Your task to perform on an android device: see sites visited before in the chrome app Image 0: 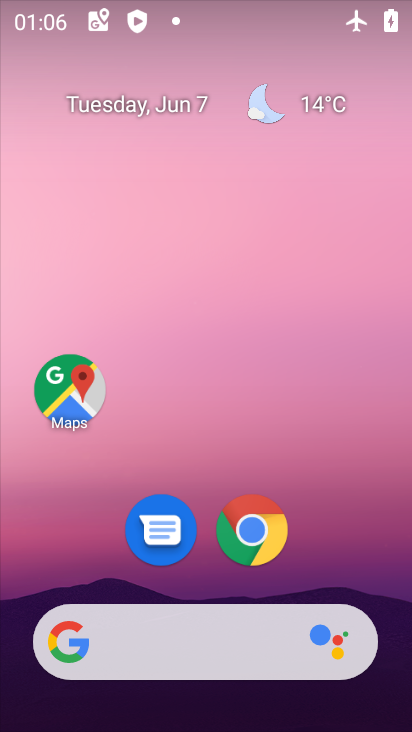
Step 0: click (254, 519)
Your task to perform on an android device: see sites visited before in the chrome app Image 1: 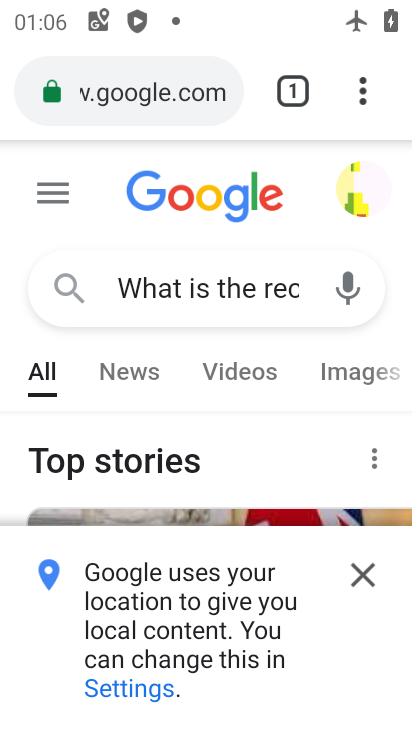
Step 1: click (371, 93)
Your task to perform on an android device: see sites visited before in the chrome app Image 2: 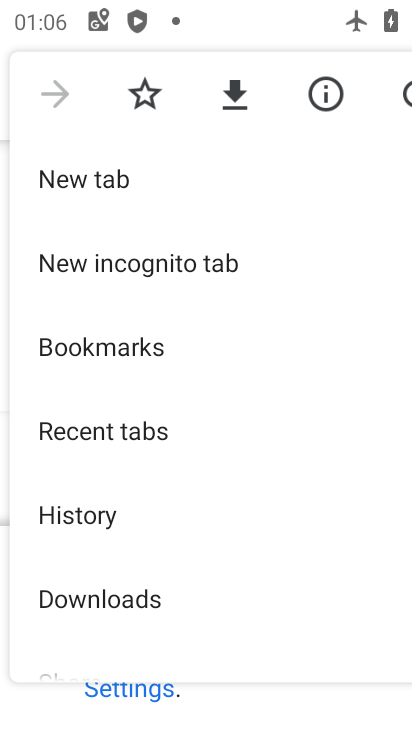
Step 2: click (110, 514)
Your task to perform on an android device: see sites visited before in the chrome app Image 3: 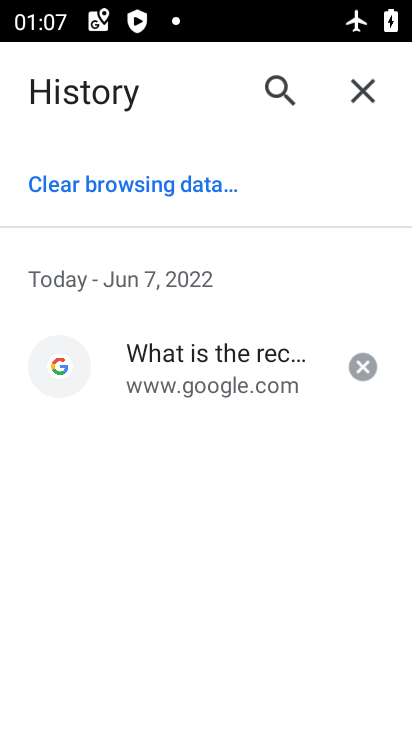
Step 3: task complete